Your task to perform on an android device: delete a single message in the gmail app Image 0: 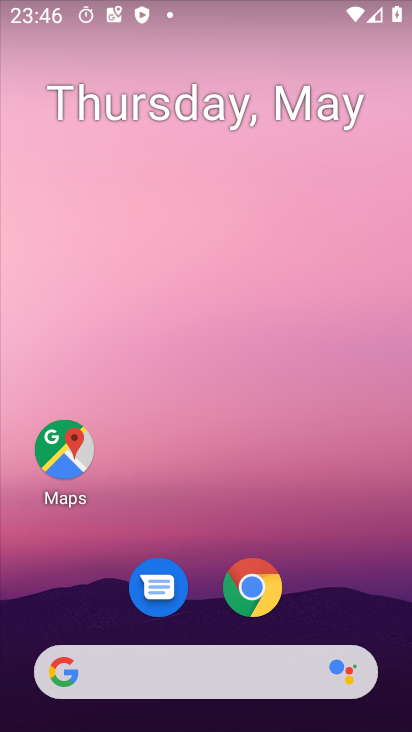
Step 0: drag from (370, 637) to (400, 5)
Your task to perform on an android device: delete a single message in the gmail app Image 1: 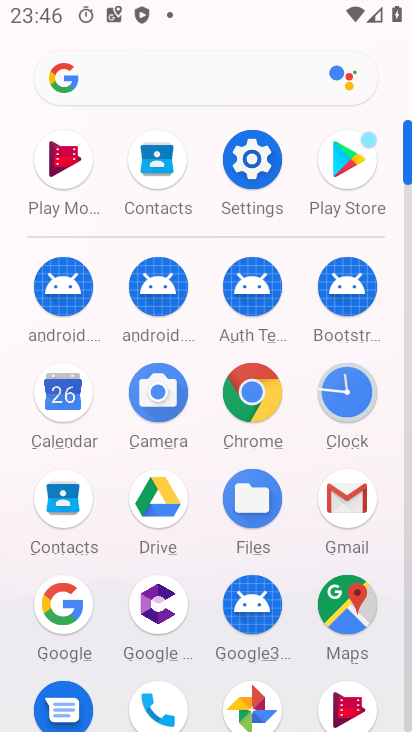
Step 1: click (343, 503)
Your task to perform on an android device: delete a single message in the gmail app Image 2: 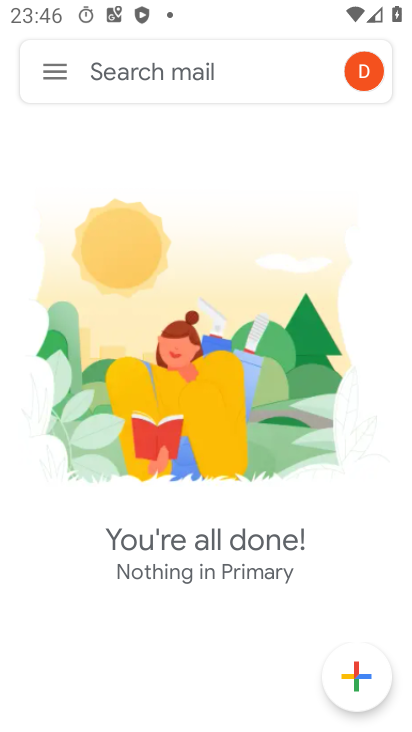
Step 2: click (66, 73)
Your task to perform on an android device: delete a single message in the gmail app Image 3: 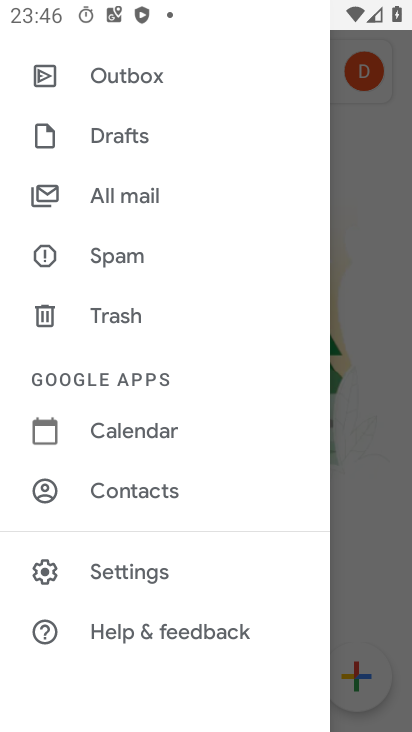
Step 3: click (109, 191)
Your task to perform on an android device: delete a single message in the gmail app Image 4: 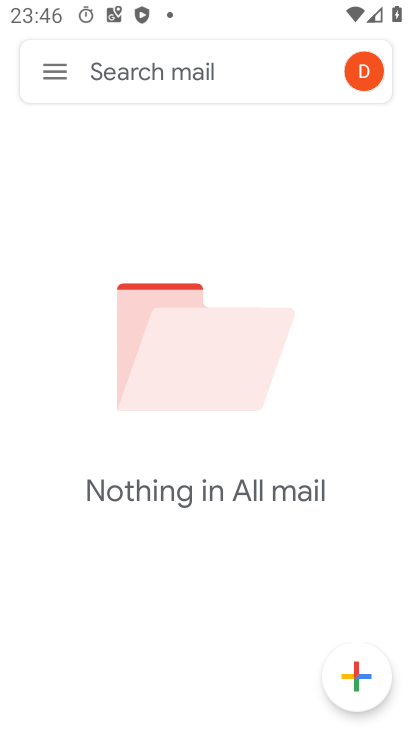
Step 4: task complete